Your task to perform on an android device: Open the calendar app, open the side menu, and click the "Day" option Image 0: 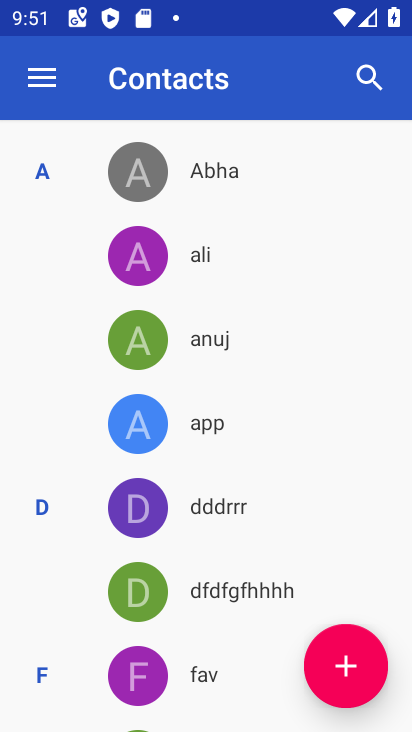
Step 0: press home button
Your task to perform on an android device: Open the calendar app, open the side menu, and click the "Day" option Image 1: 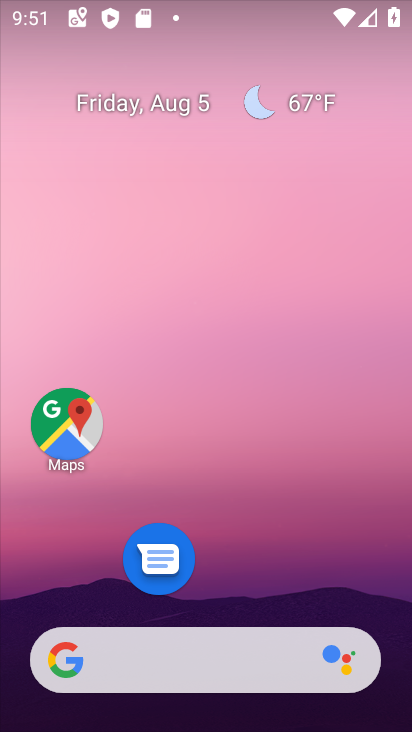
Step 1: drag from (274, 585) to (281, 83)
Your task to perform on an android device: Open the calendar app, open the side menu, and click the "Day" option Image 2: 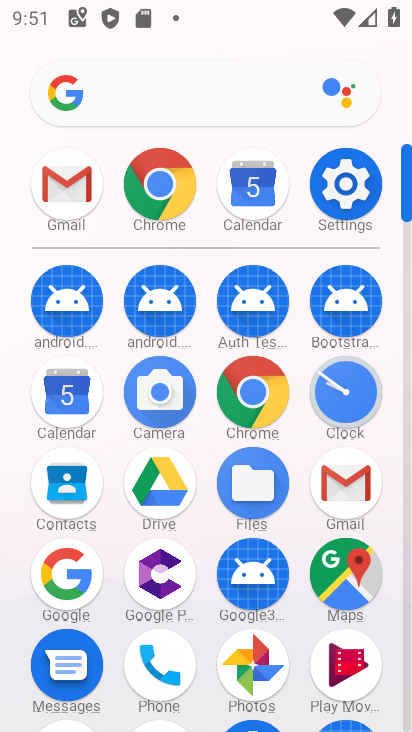
Step 2: click (66, 404)
Your task to perform on an android device: Open the calendar app, open the side menu, and click the "Day" option Image 3: 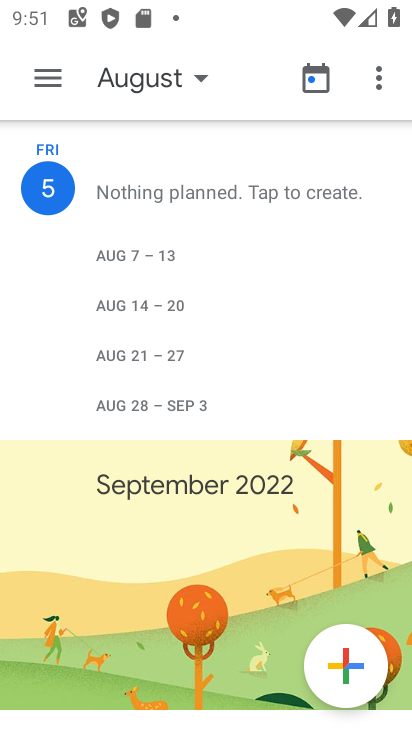
Step 3: click (46, 82)
Your task to perform on an android device: Open the calendar app, open the side menu, and click the "Day" option Image 4: 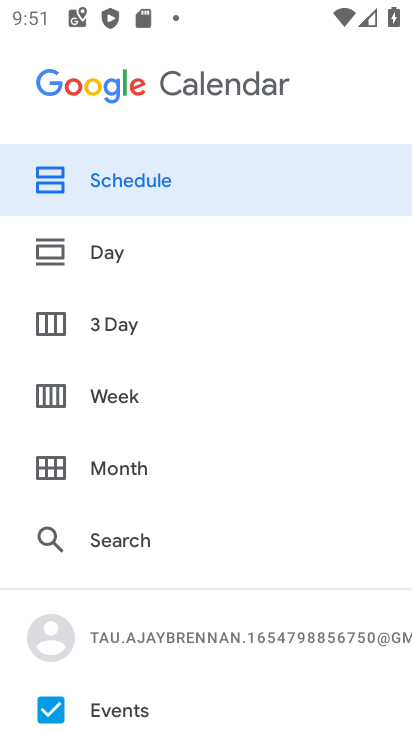
Step 4: click (102, 252)
Your task to perform on an android device: Open the calendar app, open the side menu, and click the "Day" option Image 5: 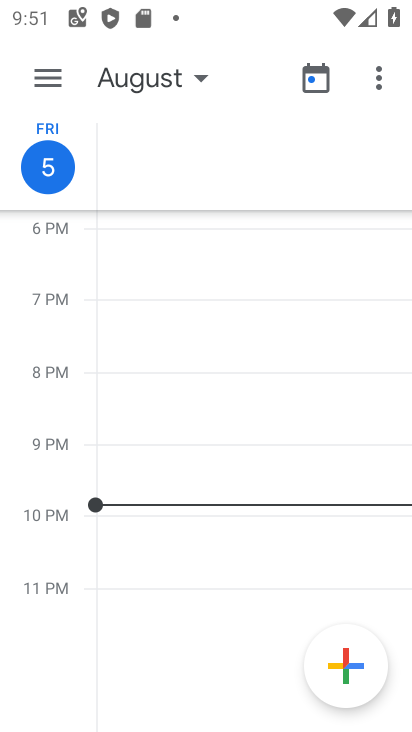
Step 5: task complete